Your task to perform on an android device: empty trash in google photos Image 0: 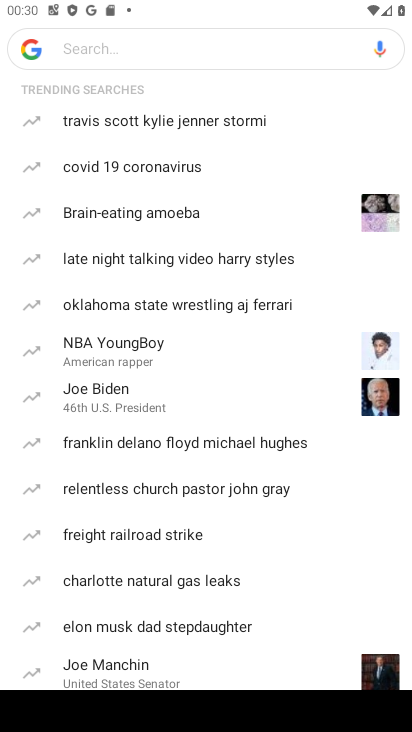
Step 0: press back button
Your task to perform on an android device: empty trash in google photos Image 1: 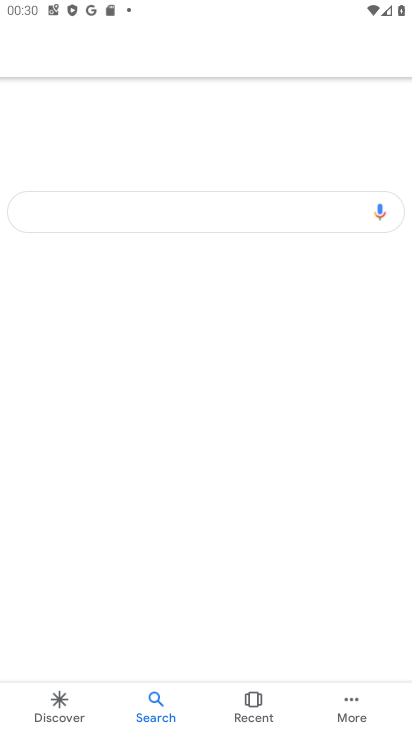
Step 1: click (370, 705)
Your task to perform on an android device: empty trash in google photos Image 2: 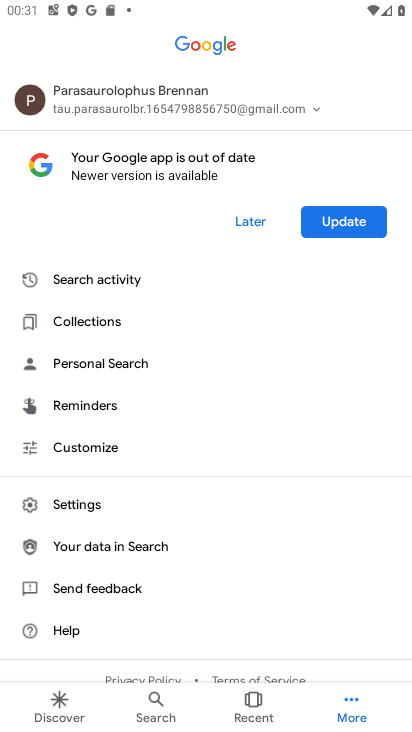
Step 2: task complete